Your task to perform on an android device: turn pop-ups off in chrome Image 0: 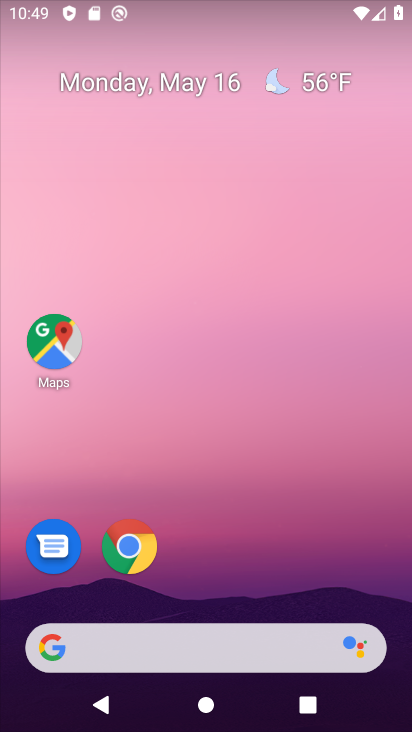
Step 0: drag from (300, 353) to (298, 18)
Your task to perform on an android device: turn pop-ups off in chrome Image 1: 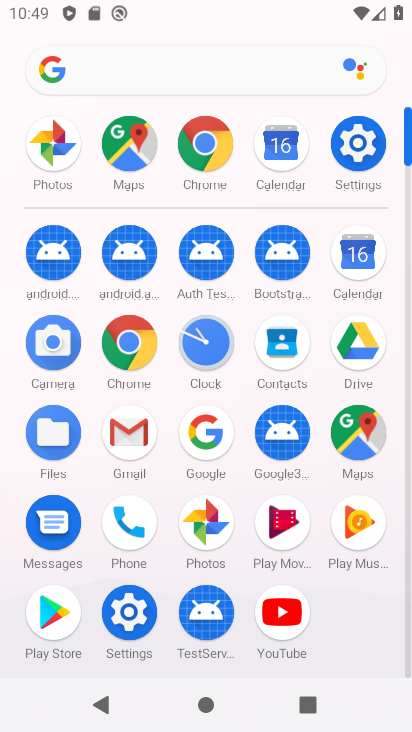
Step 1: click (214, 140)
Your task to perform on an android device: turn pop-ups off in chrome Image 2: 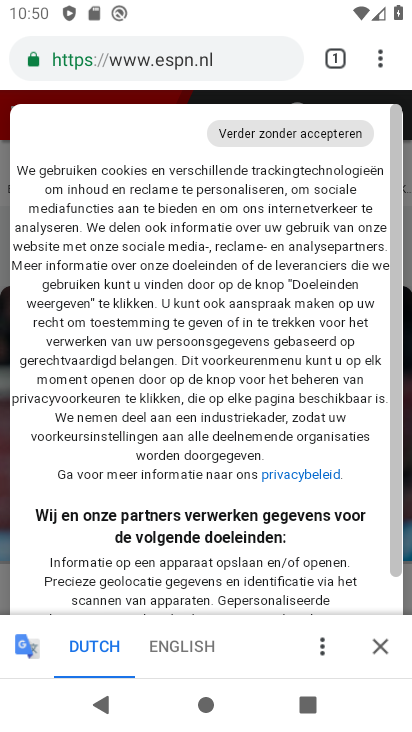
Step 2: drag from (377, 61) to (211, 576)
Your task to perform on an android device: turn pop-ups off in chrome Image 3: 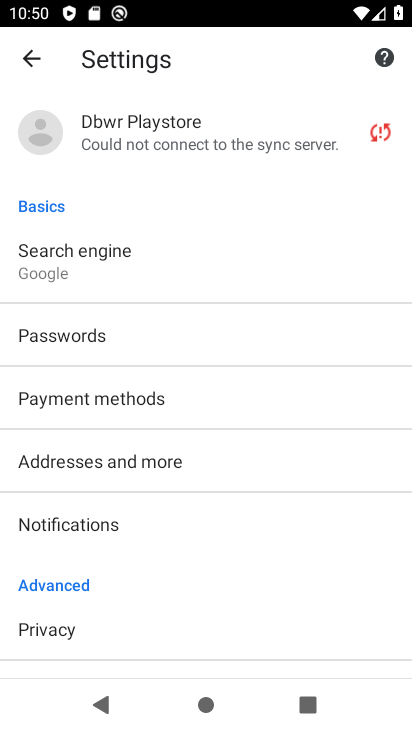
Step 3: drag from (170, 621) to (169, 167)
Your task to perform on an android device: turn pop-ups off in chrome Image 4: 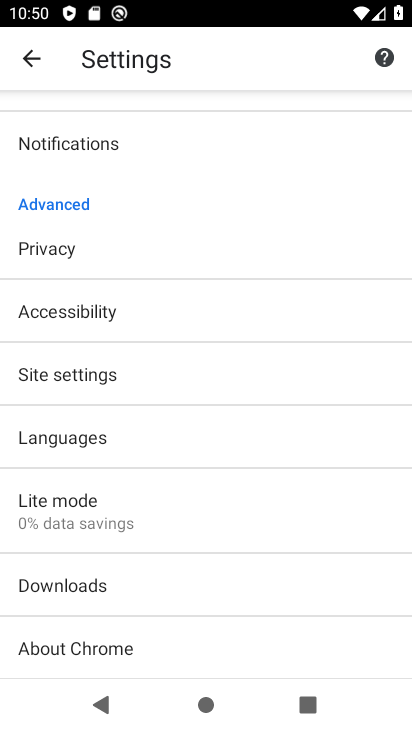
Step 4: click (83, 518)
Your task to perform on an android device: turn pop-ups off in chrome Image 5: 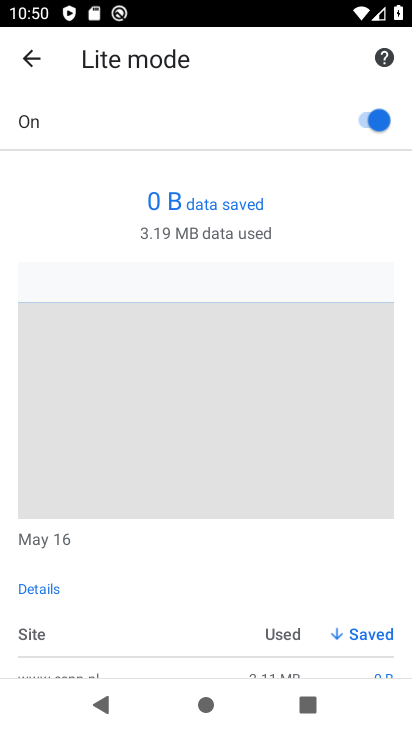
Step 5: click (31, 69)
Your task to perform on an android device: turn pop-ups off in chrome Image 6: 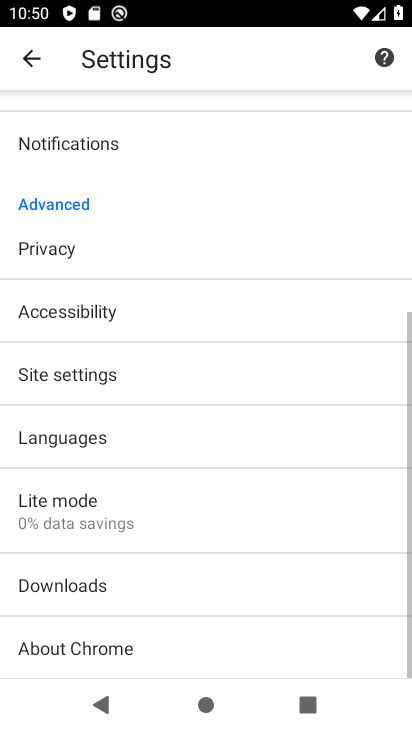
Step 6: click (87, 368)
Your task to perform on an android device: turn pop-ups off in chrome Image 7: 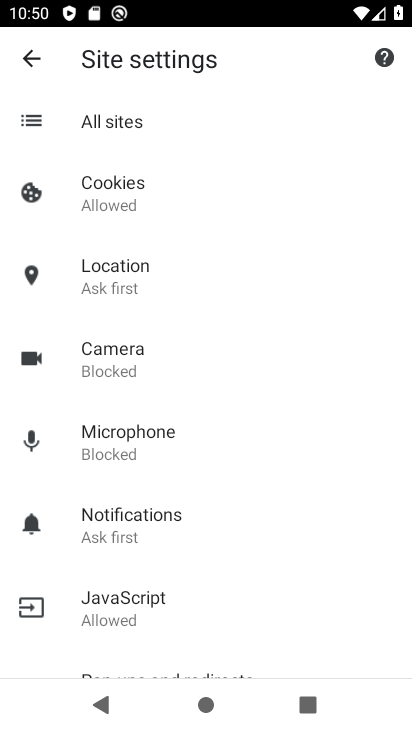
Step 7: drag from (121, 610) to (132, 204)
Your task to perform on an android device: turn pop-ups off in chrome Image 8: 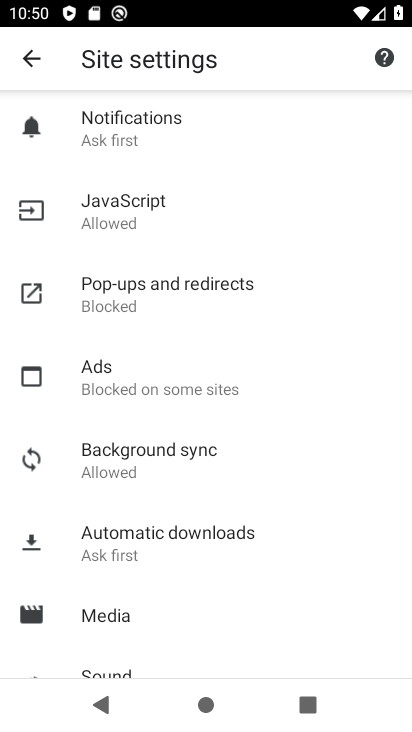
Step 8: click (111, 296)
Your task to perform on an android device: turn pop-ups off in chrome Image 9: 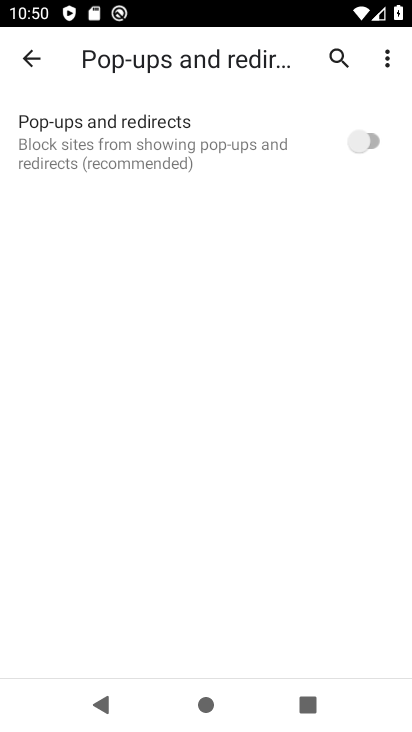
Step 9: task complete